Your task to perform on an android device: find snoozed emails in the gmail app Image 0: 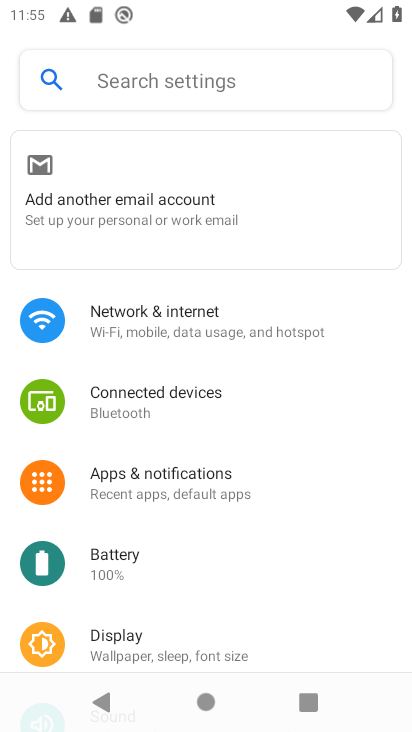
Step 0: press home button
Your task to perform on an android device: find snoozed emails in the gmail app Image 1: 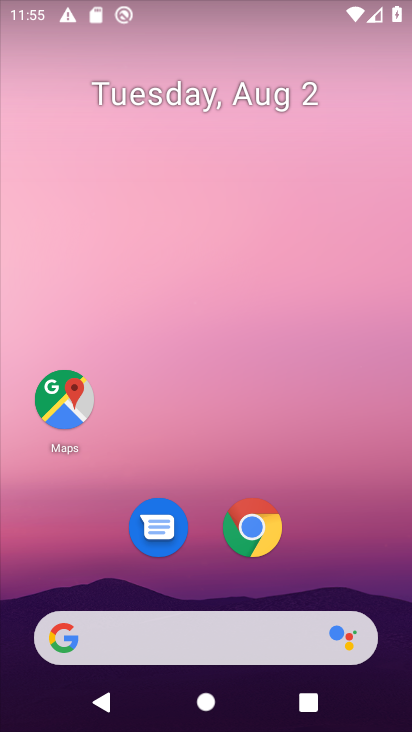
Step 1: drag from (18, 703) to (147, 69)
Your task to perform on an android device: find snoozed emails in the gmail app Image 2: 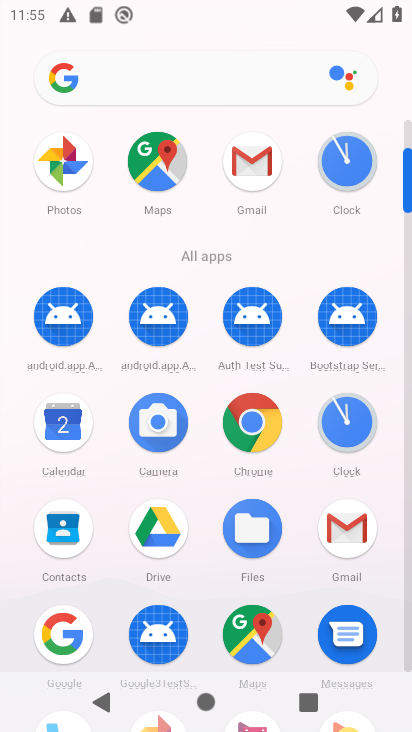
Step 2: click (369, 522)
Your task to perform on an android device: find snoozed emails in the gmail app Image 3: 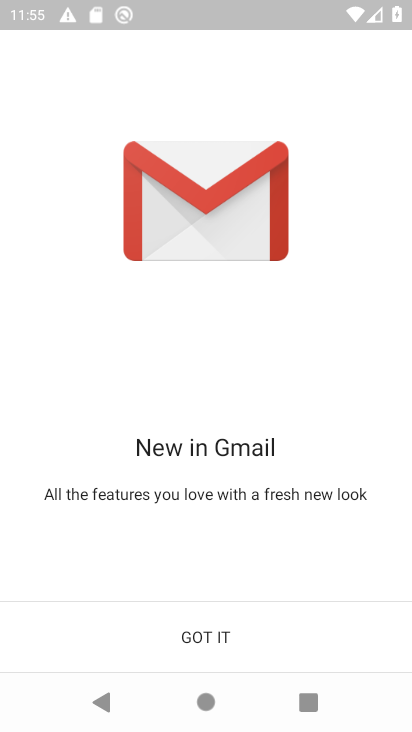
Step 3: click (196, 641)
Your task to perform on an android device: find snoozed emails in the gmail app Image 4: 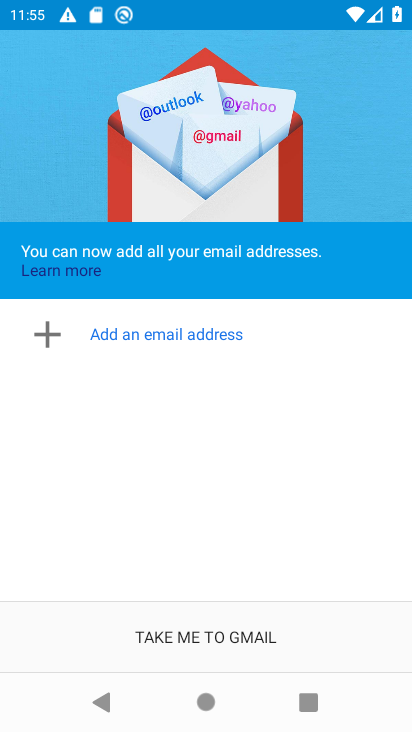
Step 4: click (175, 637)
Your task to perform on an android device: find snoozed emails in the gmail app Image 5: 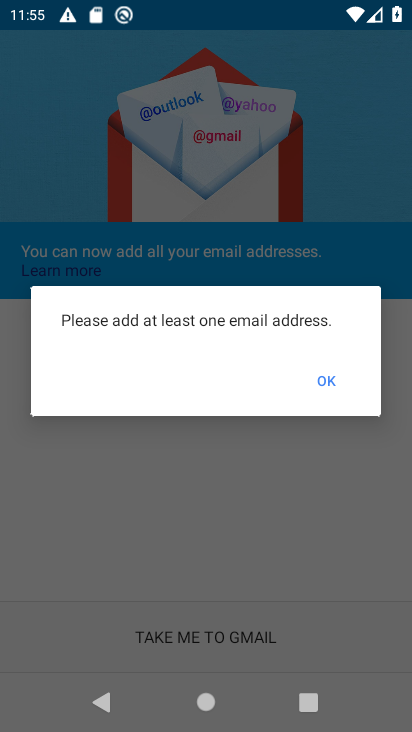
Step 5: click (313, 382)
Your task to perform on an android device: find snoozed emails in the gmail app Image 6: 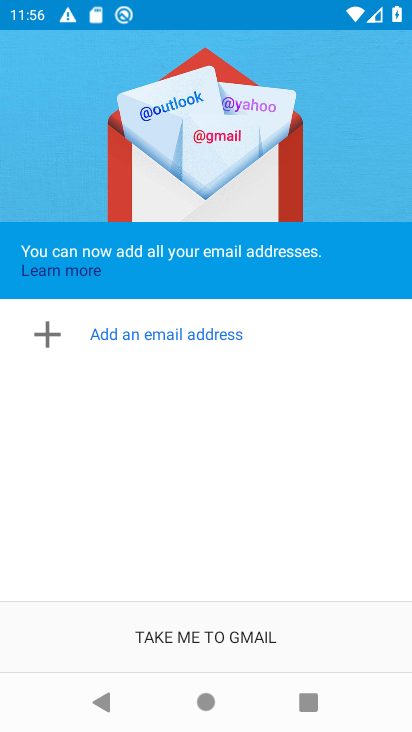
Step 6: click (171, 623)
Your task to perform on an android device: find snoozed emails in the gmail app Image 7: 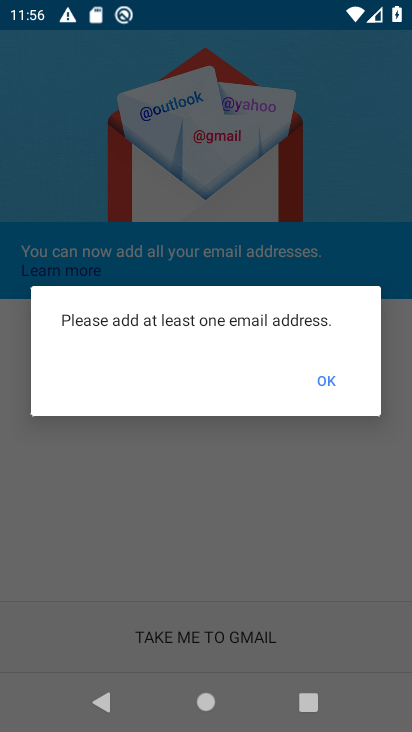
Step 7: click (317, 378)
Your task to perform on an android device: find snoozed emails in the gmail app Image 8: 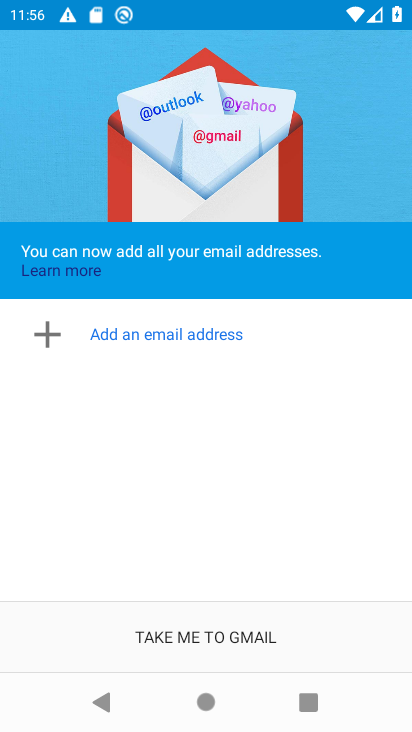
Step 8: task complete